Your task to perform on an android device: Open my contact list Image 0: 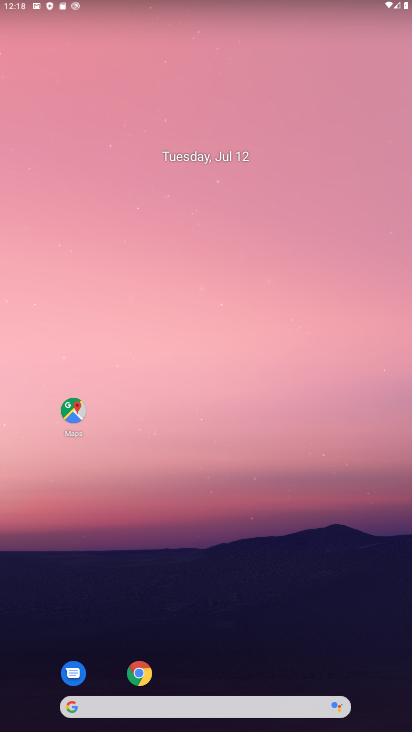
Step 0: drag from (193, 674) to (311, 164)
Your task to perform on an android device: Open my contact list Image 1: 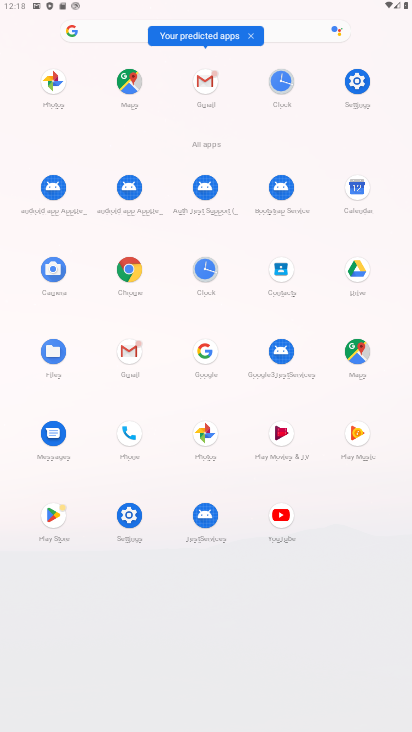
Step 1: click (290, 274)
Your task to perform on an android device: Open my contact list Image 2: 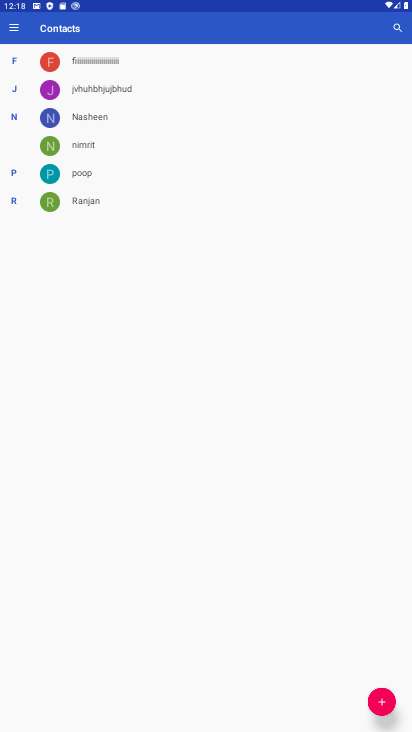
Step 2: task complete